Your task to perform on an android device: turn on the 24-hour format for clock Image 0: 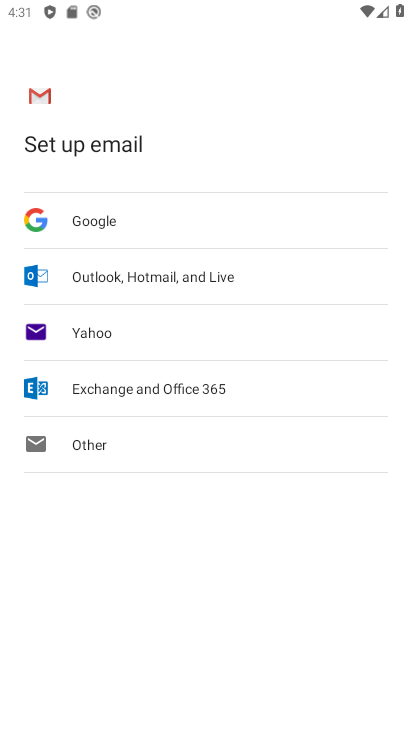
Step 0: press home button
Your task to perform on an android device: turn on the 24-hour format for clock Image 1: 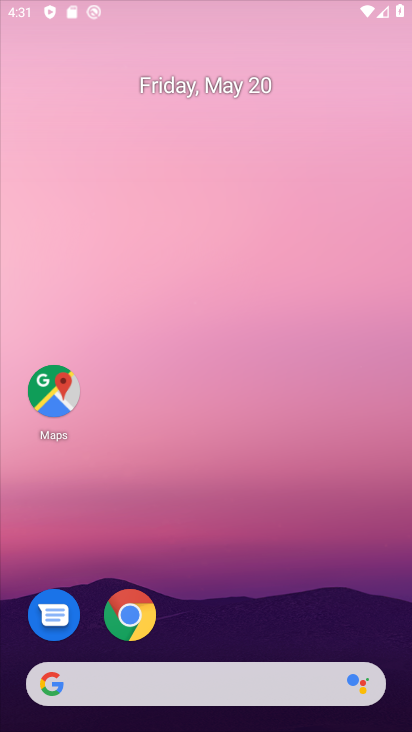
Step 1: drag from (221, 633) to (299, 90)
Your task to perform on an android device: turn on the 24-hour format for clock Image 2: 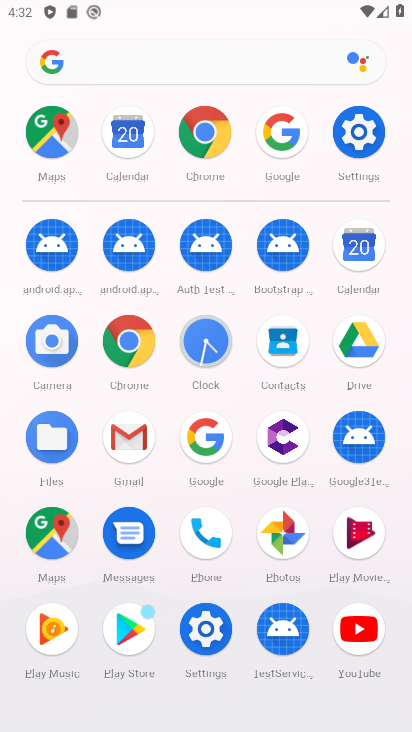
Step 2: click (377, 142)
Your task to perform on an android device: turn on the 24-hour format for clock Image 3: 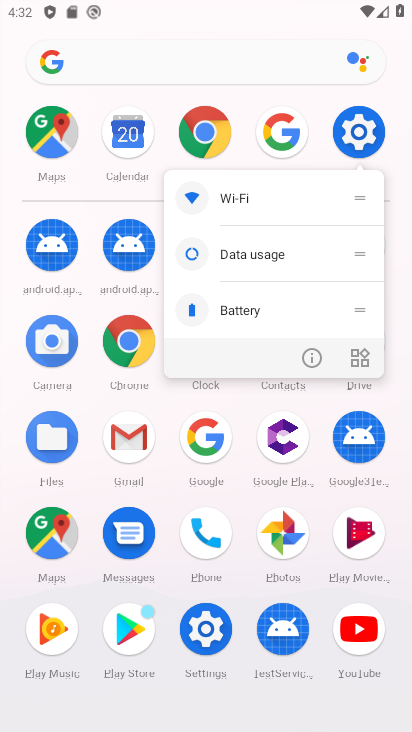
Step 3: click (376, 628)
Your task to perform on an android device: turn on the 24-hour format for clock Image 4: 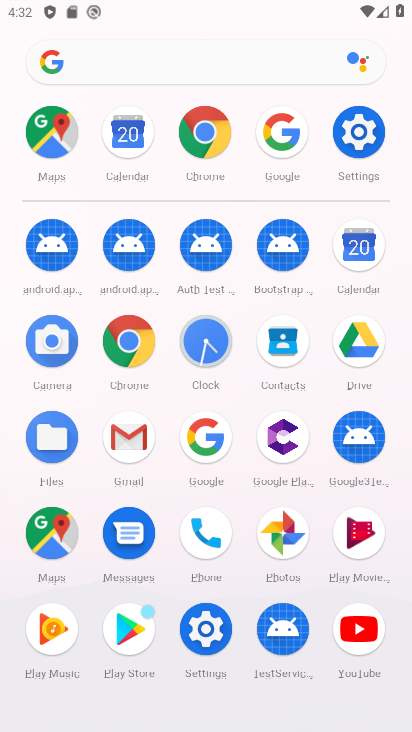
Step 4: click (219, 361)
Your task to perform on an android device: turn on the 24-hour format for clock Image 5: 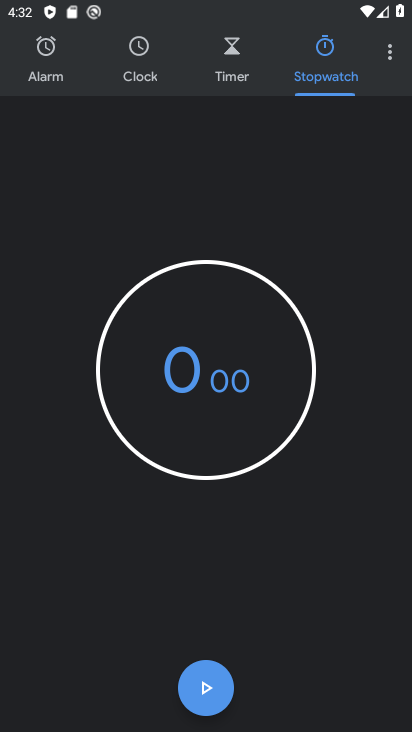
Step 5: click (389, 55)
Your task to perform on an android device: turn on the 24-hour format for clock Image 6: 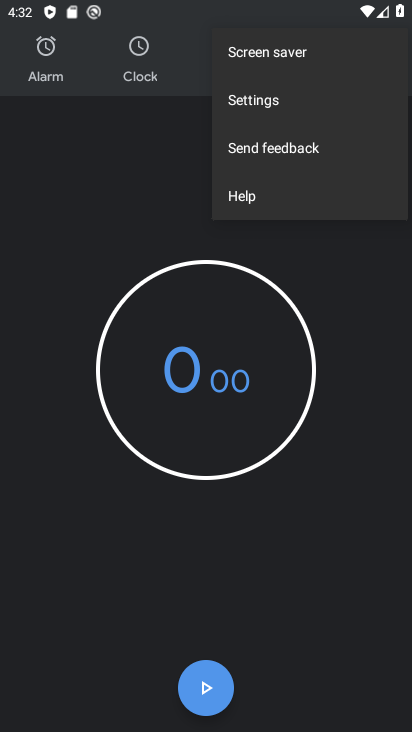
Step 6: click (293, 104)
Your task to perform on an android device: turn on the 24-hour format for clock Image 7: 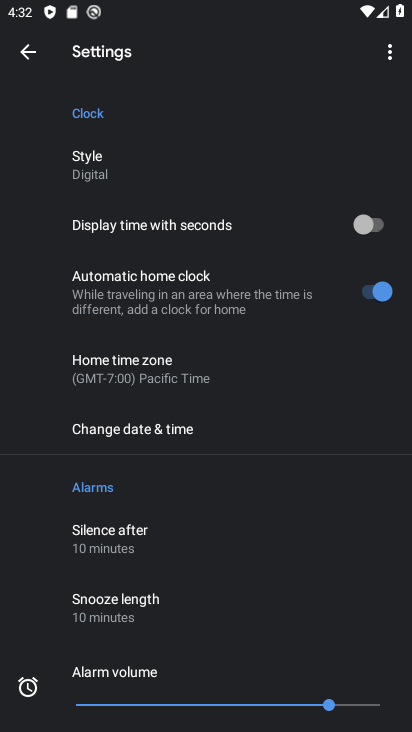
Step 7: click (208, 433)
Your task to perform on an android device: turn on the 24-hour format for clock Image 8: 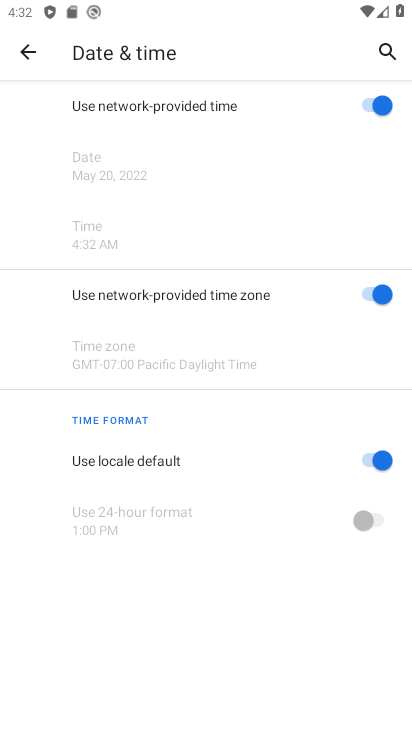
Step 8: task complete